Your task to perform on an android device: toggle notifications settings in the gmail app Image 0: 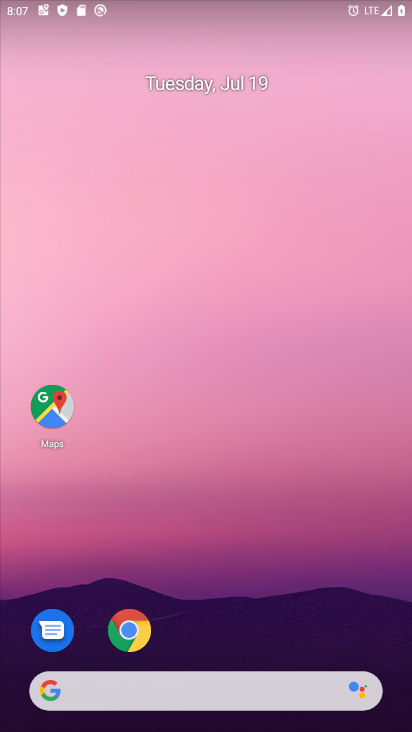
Step 0: drag from (271, 462) to (245, 11)
Your task to perform on an android device: toggle notifications settings in the gmail app Image 1: 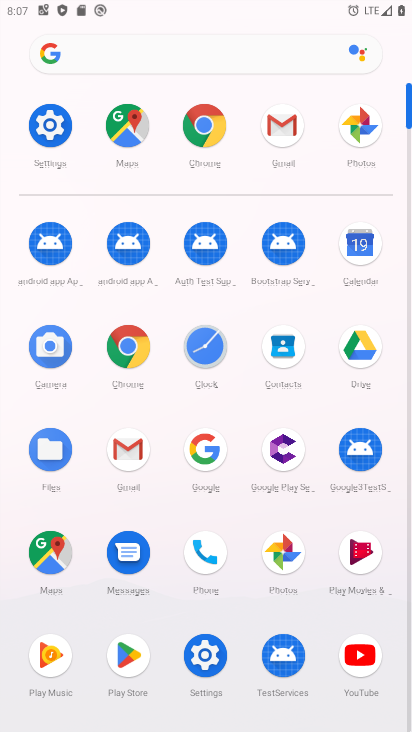
Step 1: click (278, 130)
Your task to perform on an android device: toggle notifications settings in the gmail app Image 2: 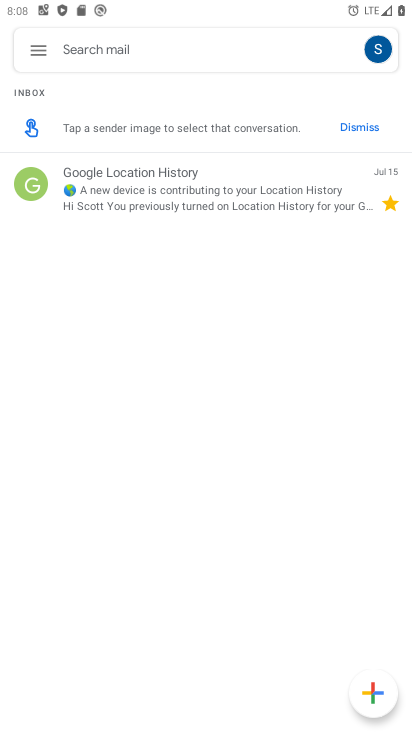
Step 2: click (33, 41)
Your task to perform on an android device: toggle notifications settings in the gmail app Image 3: 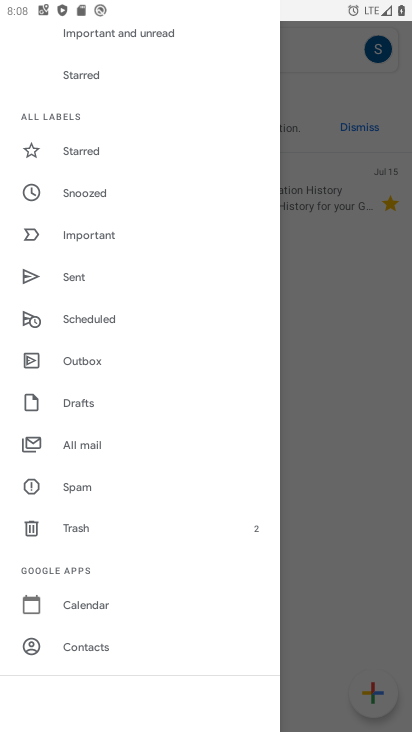
Step 3: drag from (82, 611) to (133, 169)
Your task to perform on an android device: toggle notifications settings in the gmail app Image 4: 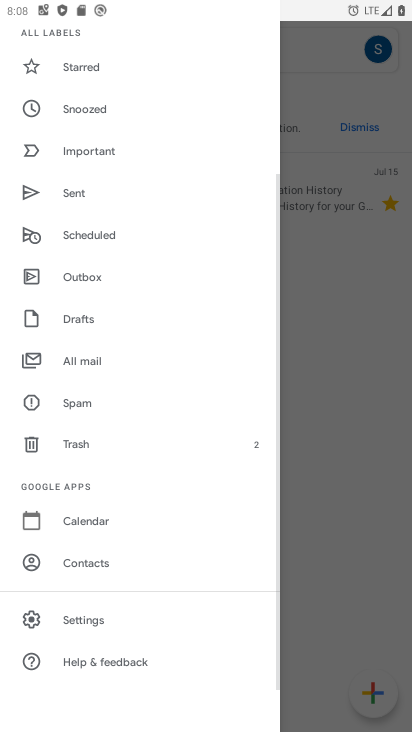
Step 4: click (84, 617)
Your task to perform on an android device: toggle notifications settings in the gmail app Image 5: 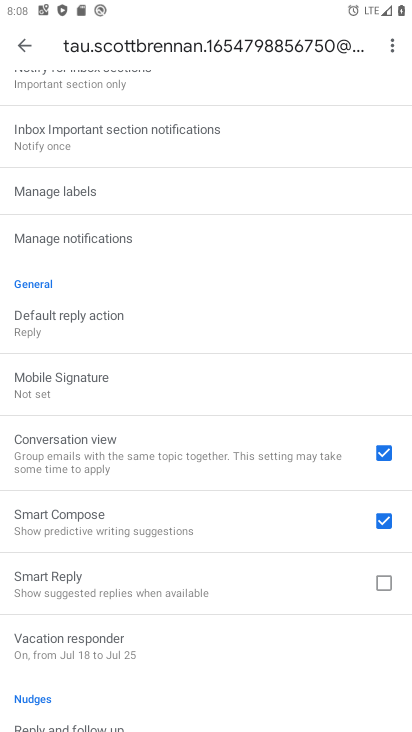
Step 5: click (79, 238)
Your task to perform on an android device: toggle notifications settings in the gmail app Image 6: 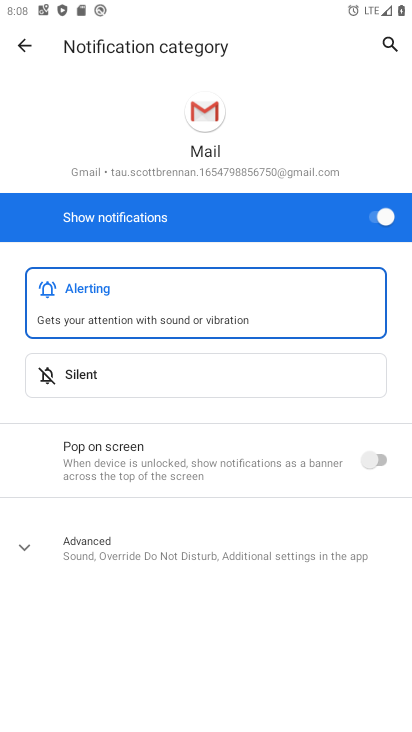
Step 6: click (375, 221)
Your task to perform on an android device: toggle notifications settings in the gmail app Image 7: 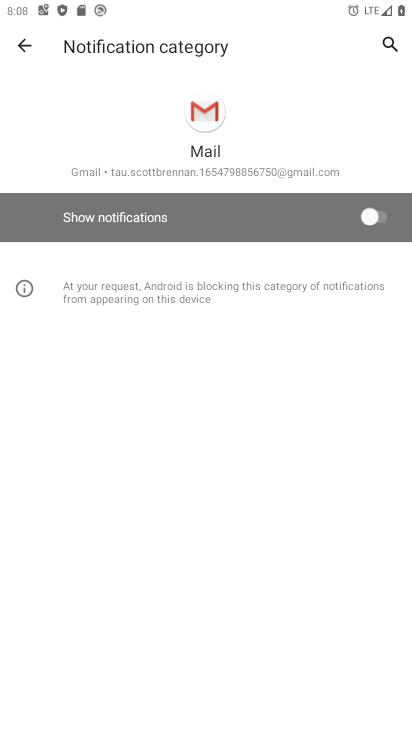
Step 7: task complete